Your task to perform on an android device: Go to CNN.com Image 0: 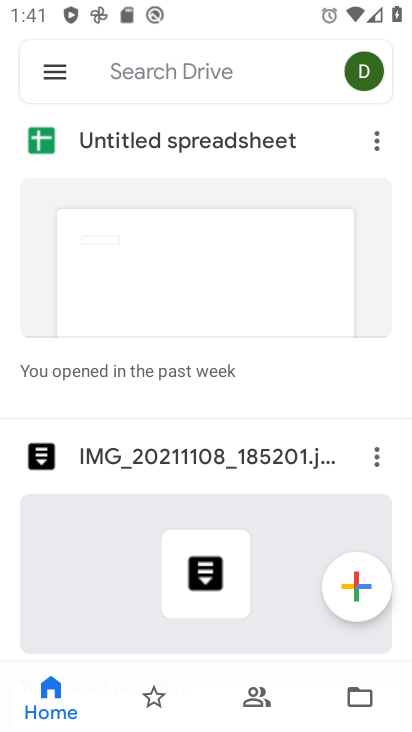
Step 0: press home button
Your task to perform on an android device: Go to CNN.com Image 1: 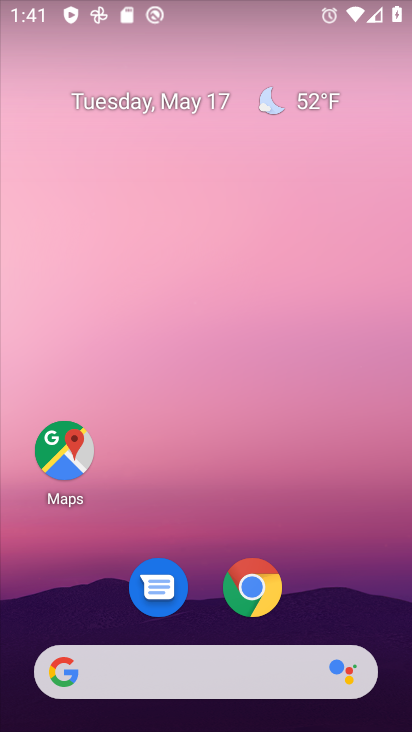
Step 1: click (279, 600)
Your task to perform on an android device: Go to CNN.com Image 2: 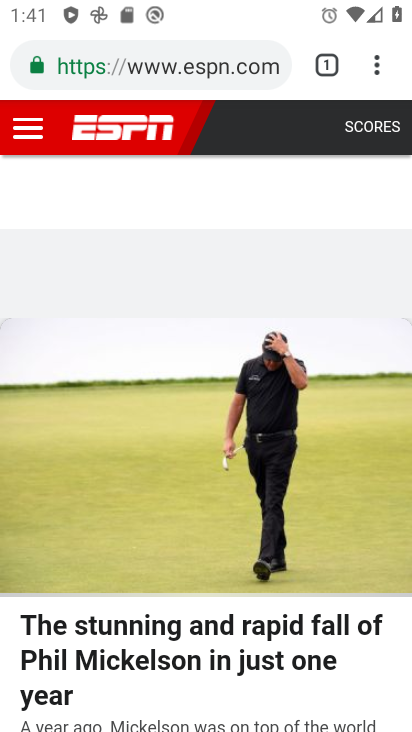
Step 2: click (242, 67)
Your task to perform on an android device: Go to CNN.com Image 3: 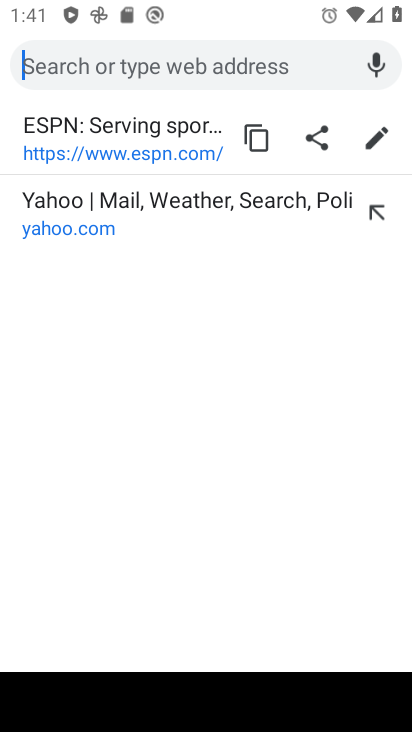
Step 3: type "cnn"
Your task to perform on an android device: Go to CNN.com Image 4: 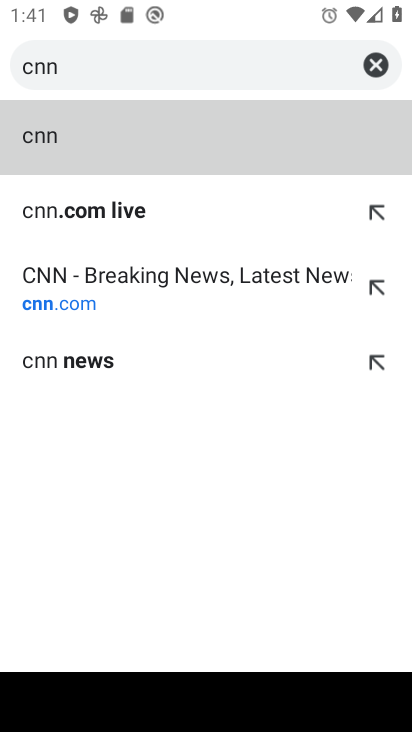
Step 4: click (217, 268)
Your task to perform on an android device: Go to CNN.com Image 5: 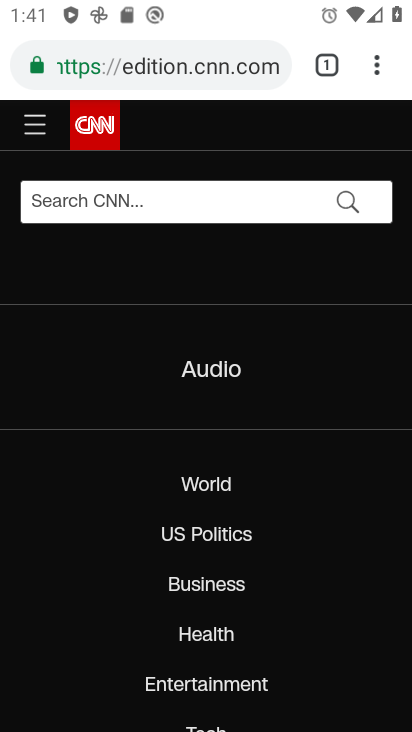
Step 5: task complete